Your task to perform on an android device: remove spam from my inbox in the gmail app Image 0: 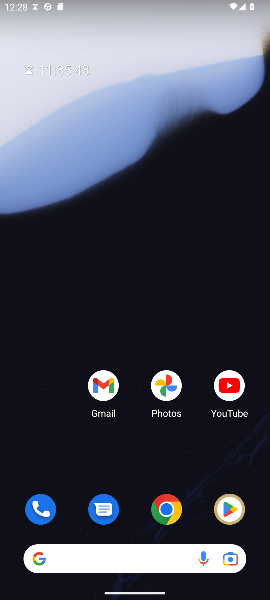
Step 0: click (98, 379)
Your task to perform on an android device: remove spam from my inbox in the gmail app Image 1: 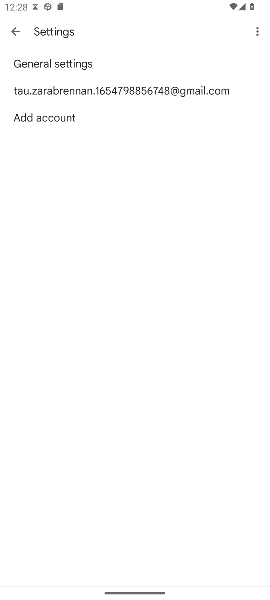
Step 1: press back button
Your task to perform on an android device: remove spam from my inbox in the gmail app Image 2: 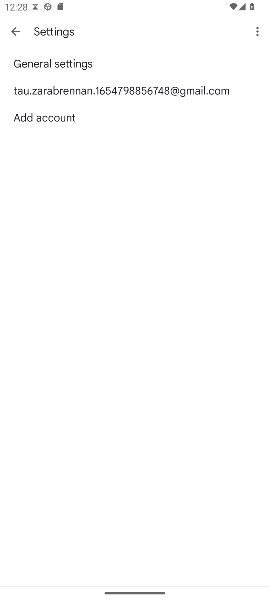
Step 2: press back button
Your task to perform on an android device: remove spam from my inbox in the gmail app Image 3: 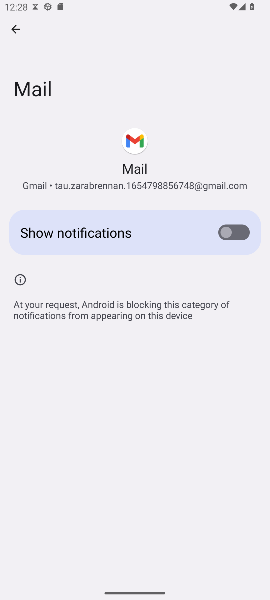
Step 3: press back button
Your task to perform on an android device: remove spam from my inbox in the gmail app Image 4: 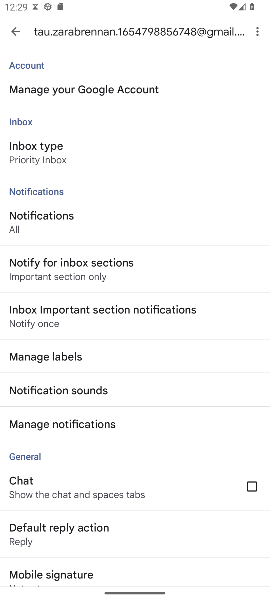
Step 4: press back button
Your task to perform on an android device: remove spam from my inbox in the gmail app Image 5: 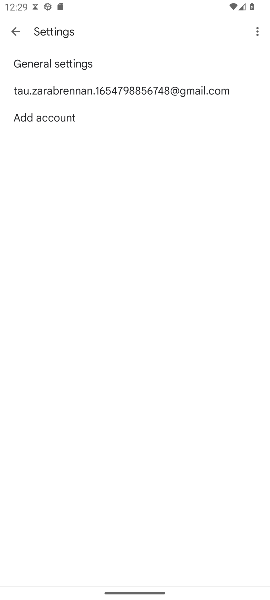
Step 5: press back button
Your task to perform on an android device: remove spam from my inbox in the gmail app Image 6: 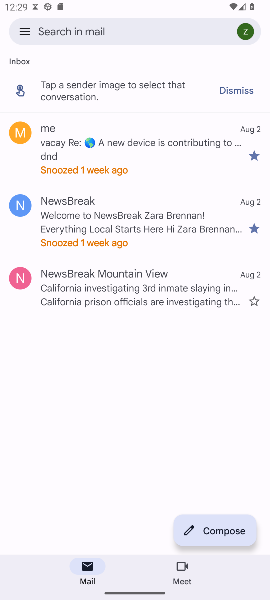
Step 6: click (37, 27)
Your task to perform on an android device: remove spam from my inbox in the gmail app Image 7: 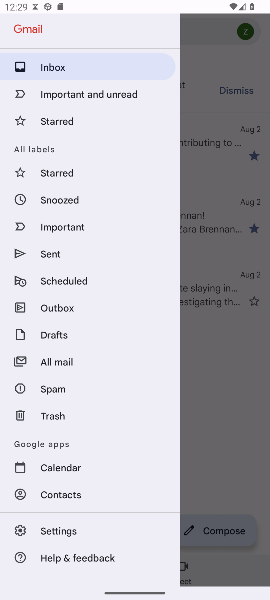
Step 7: click (53, 391)
Your task to perform on an android device: remove spam from my inbox in the gmail app Image 8: 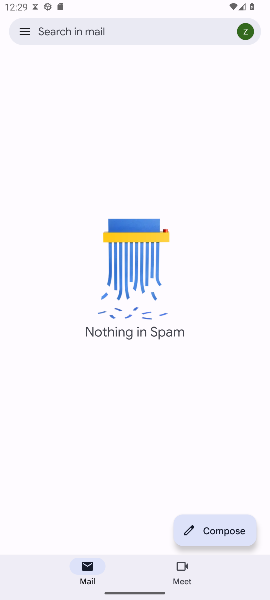
Step 8: task complete